Your task to perform on an android device: check storage Image 0: 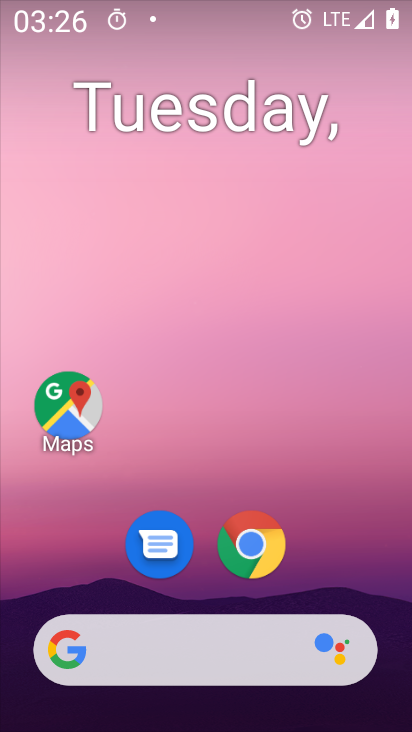
Step 0: drag from (353, 568) to (250, 75)
Your task to perform on an android device: check storage Image 1: 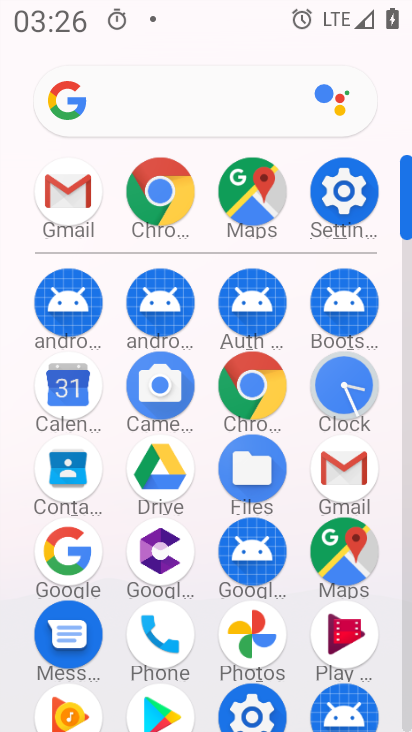
Step 1: drag from (17, 583) to (15, 282)
Your task to perform on an android device: check storage Image 2: 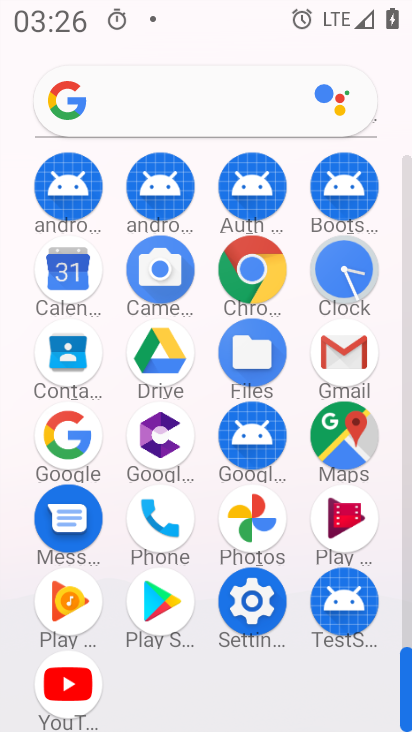
Step 2: click (252, 596)
Your task to perform on an android device: check storage Image 3: 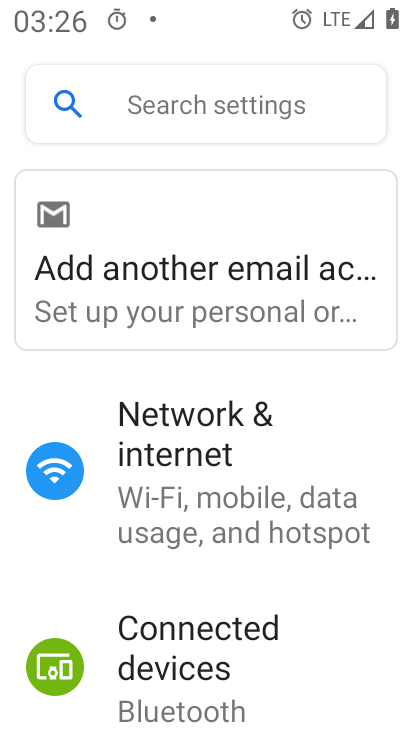
Step 3: drag from (320, 648) to (325, 273)
Your task to perform on an android device: check storage Image 4: 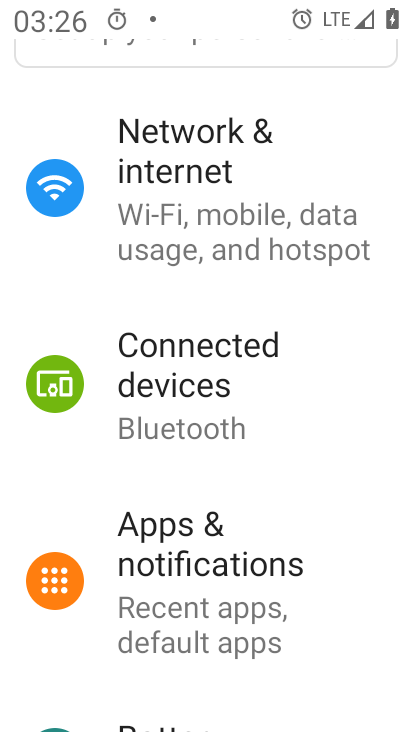
Step 4: drag from (281, 593) to (268, 163)
Your task to perform on an android device: check storage Image 5: 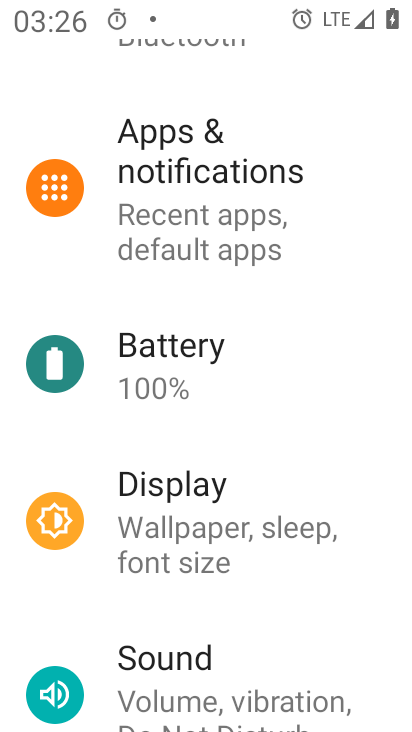
Step 5: drag from (250, 556) to (262, 199)
Your task to perform on an android device: check storage Image 6: 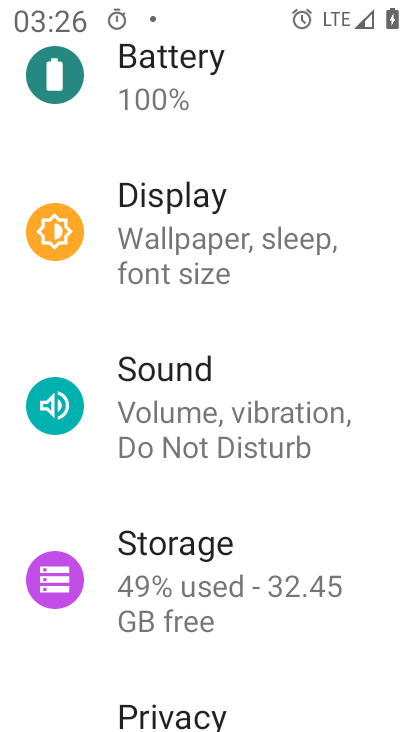
Step 6: drag from (280, 636) to (270, 263)
Your task to perform on an android device: check storage Image 7: 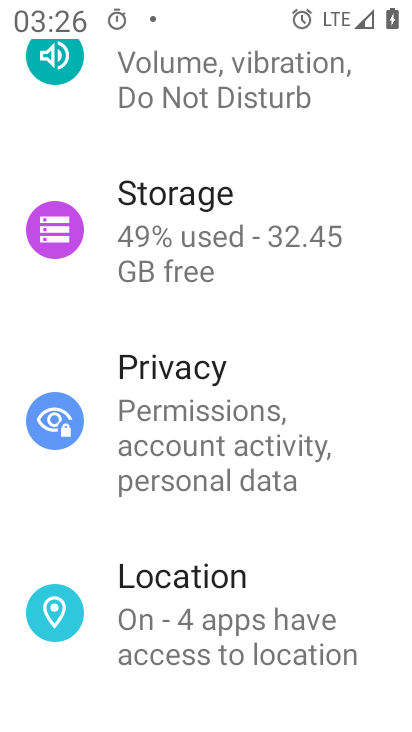
Step 7: click (174, 235)
Your task to perform on an android device: check storage Image 8: 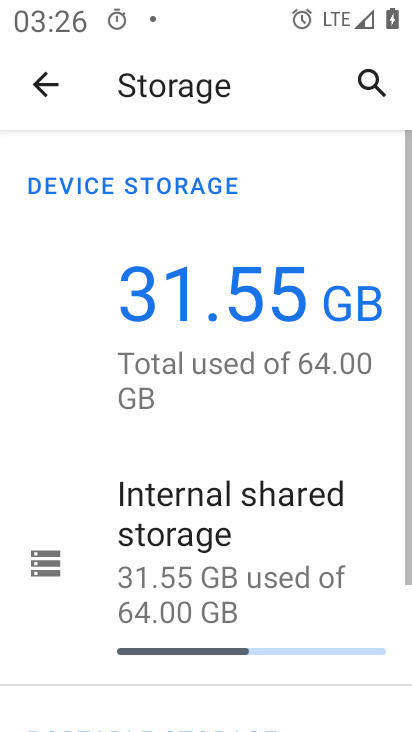
Step 8: task complete